Your task to perform on an android device: delete a single message in the gmail app Image 0: 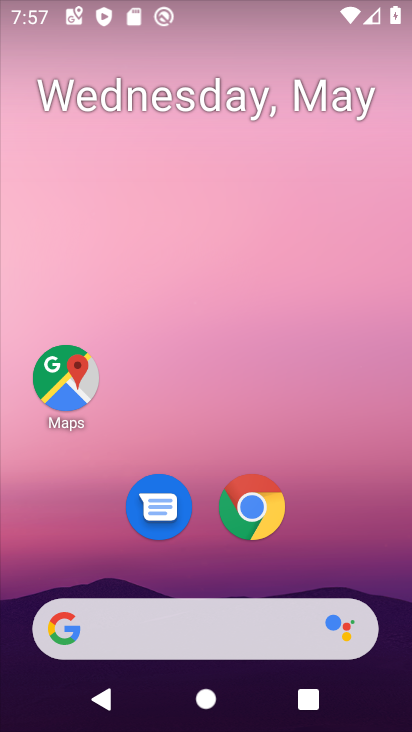
Step 0: drag from (313, 542) to (294, 186)
Your task to perform on an android device: delete a single message in the gmail app Image 1: 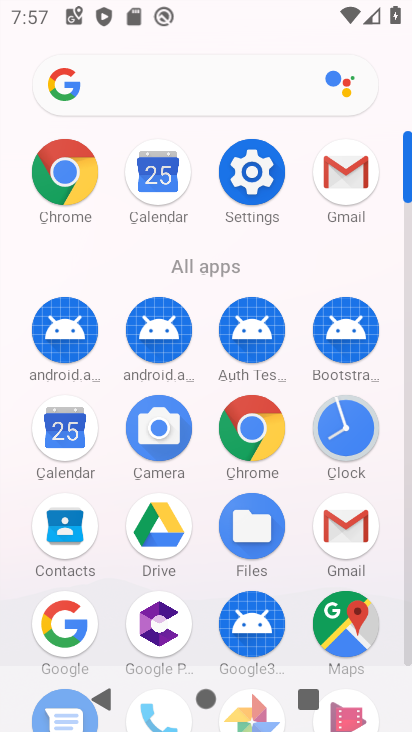
Step 1: click (331, 523)
Your task to perform on an android device: delete a single message in the gmail app Image 2: 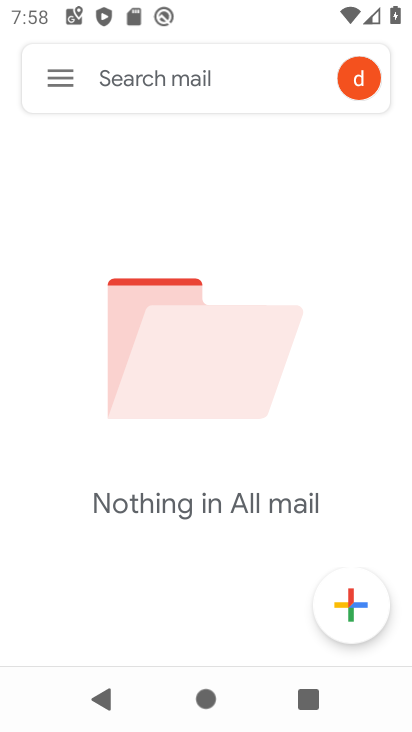
Step 2: task complete